Your task to perform on an android device: Go to network settings Image 0: 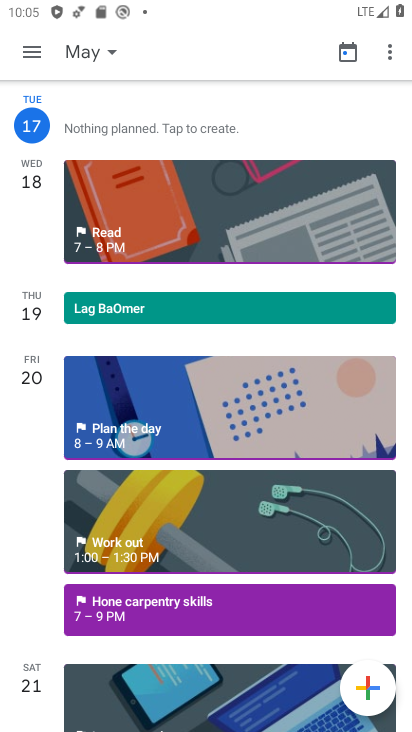
Step 0: press home button
Your task to perform on an android device: Go to network settings Image 1: 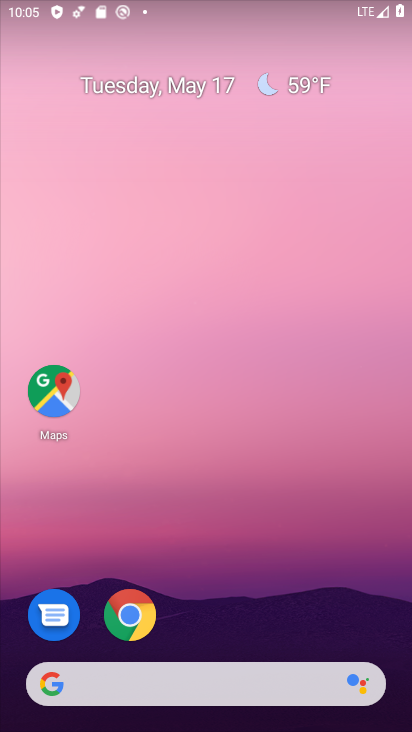
Step 1: drag from (150, 688) to (286, 247)
Your task to perform on an android device: Go to network settings Image 2: 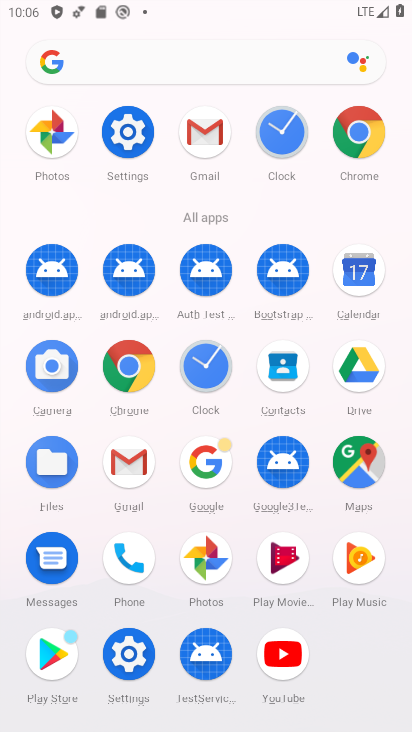
Step 2: click (129, 138)
Your task to perform on an android device: Go to network settings Image 3: 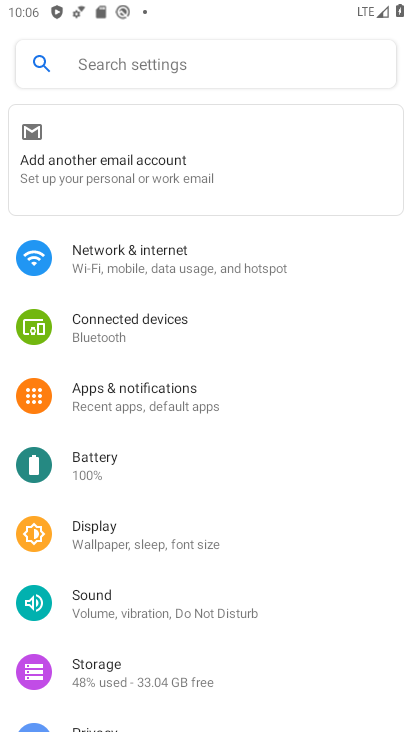
Step 3: click (176, 260)
Your task to perform on an android device: Go to network settings Image 4: 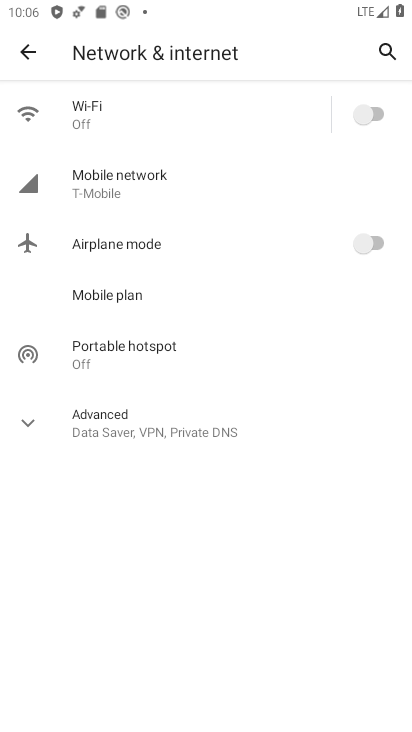
Step 4: task complete